Your task to perform on an android device: turn on bluetooth scan Image 0: 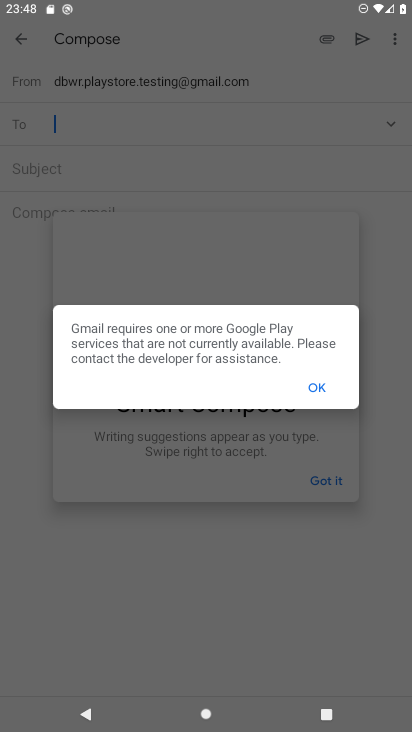
Step 0: press home button
Your task to perform on an android device: turn on bluetooth scan Image 1: 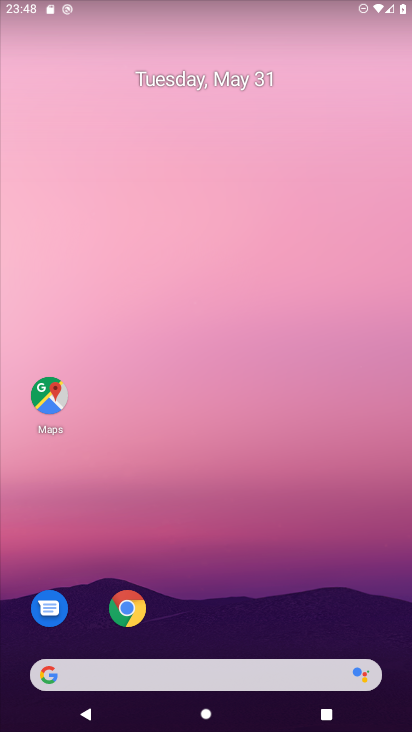
Step 1: drag from (238, 589) to (142, 0)
Your task to perform on an android device: turn on bluetooth scan Image 2: 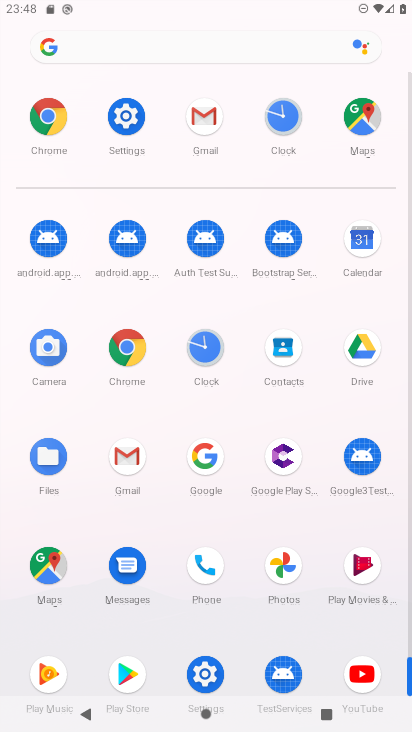
Step 2: click (130, 132)
Your task to perform on an android device: turn on bluetooth scan Image 3: 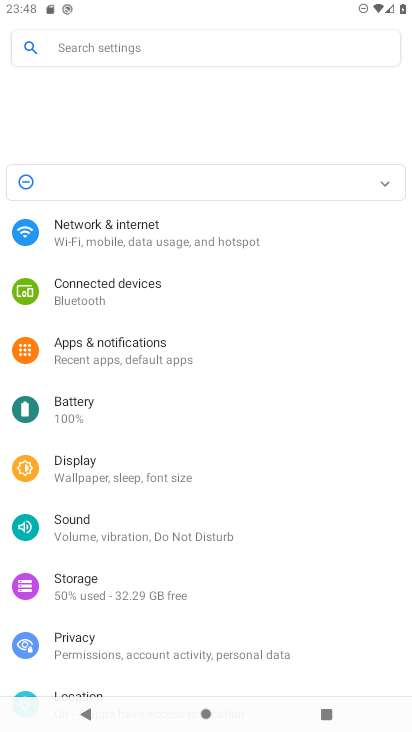
Step 3: drag from (245, 352) to (214, 32)
Your task to perform on an android device: turn on bluetooth scan Image 4: 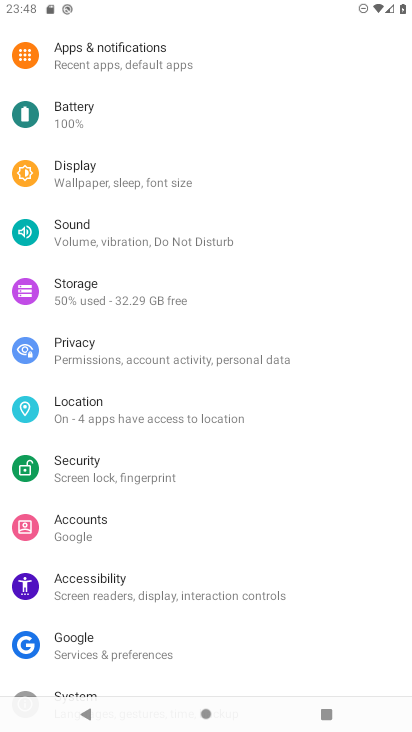
Step 4: click (223, 12)
Your task to perform on an android device: turn on bluetooth scan Image 5: 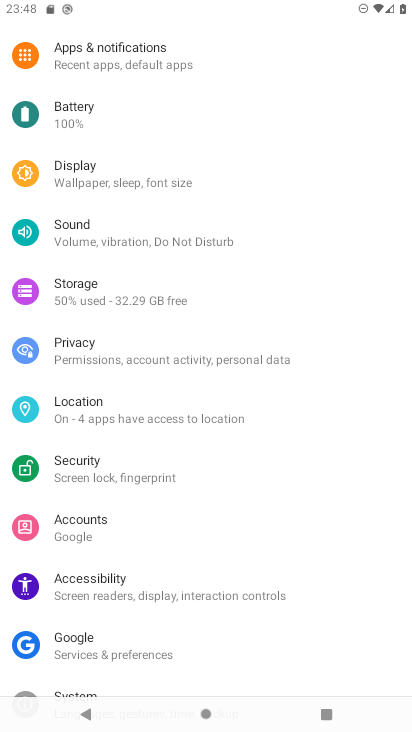
Step 5: drag from (130, 652) to (63, 217)
Your task to perform on an android device: turn on bluetooth scan Image 6: 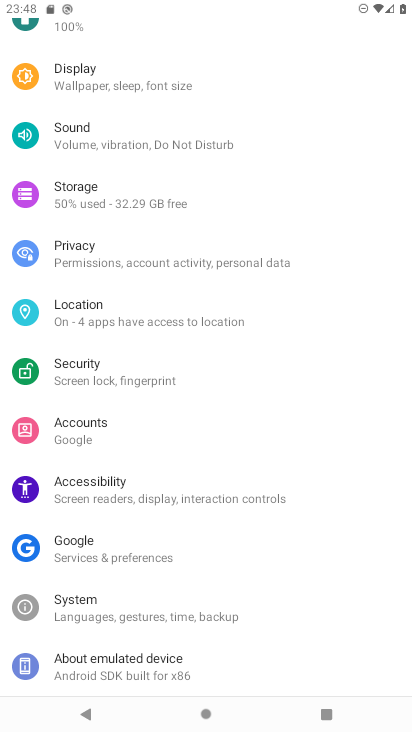
Step 6: click (67, 328)
Your task to perform on an android device: turn on bluetooth scan Image 7: 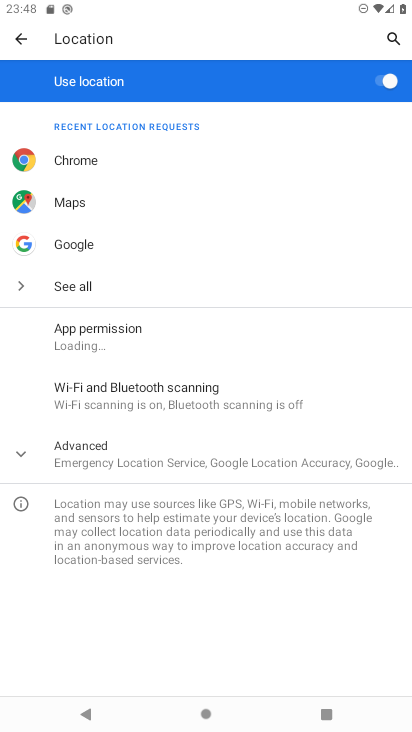
Step 7: click (149, 381)
Your task to perform on an android device: turn on bluetooth scan Image 8: 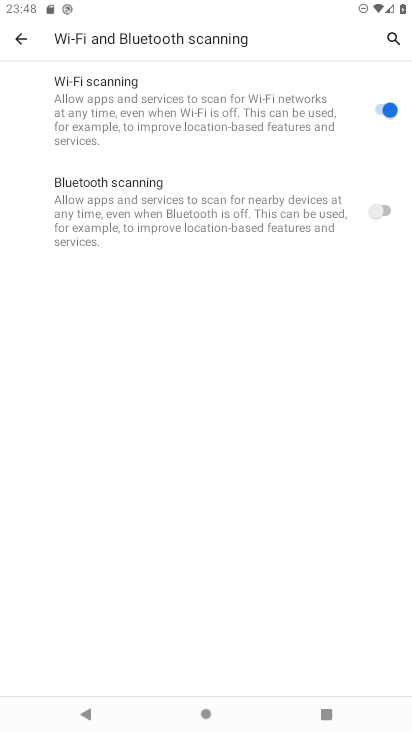
Step 8: click (388, 197)
Your task to perform on an android device: turn on bluetooth scan Image 9: 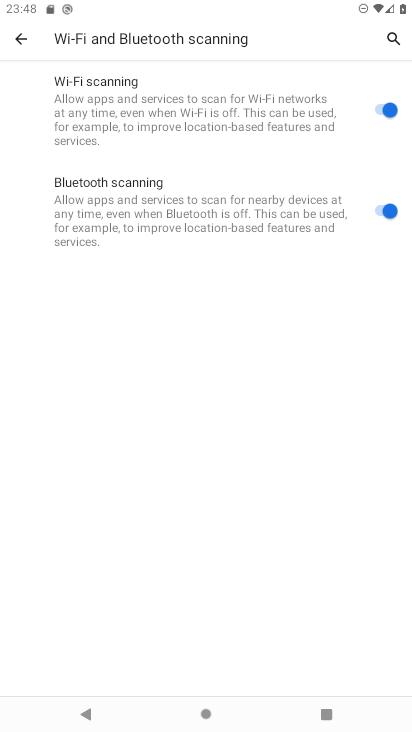
Step 9: task complete